Your task to perform on an android device: Show me recent news Image 0: 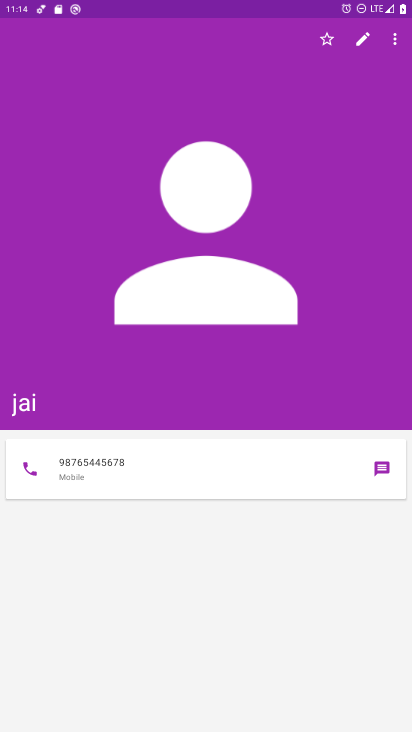
Step 0: drag from (227, 572) to (257, 271)
Your task to perform on an android device: Show me recent news Image 1: 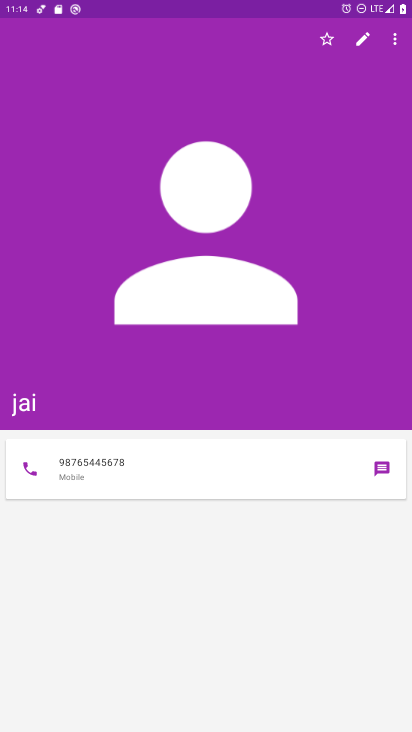
Step 1: press home button
Your task to perform on an android device: Show me recent news Image 2: 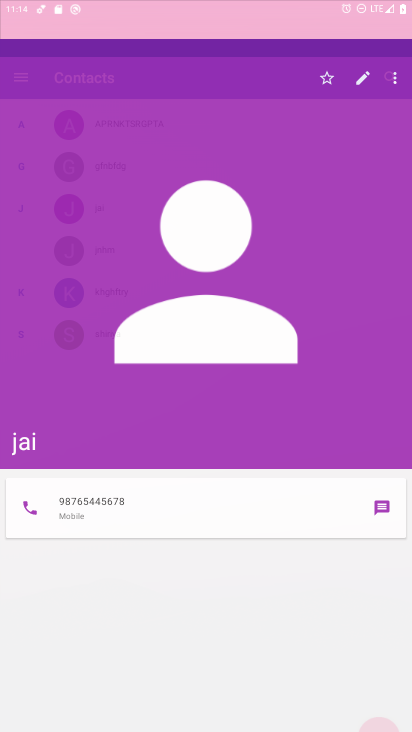
Step 2: drag from (255, 566) to (305, 51)
Your task to perform on an android device: Show me recent news Image 3: 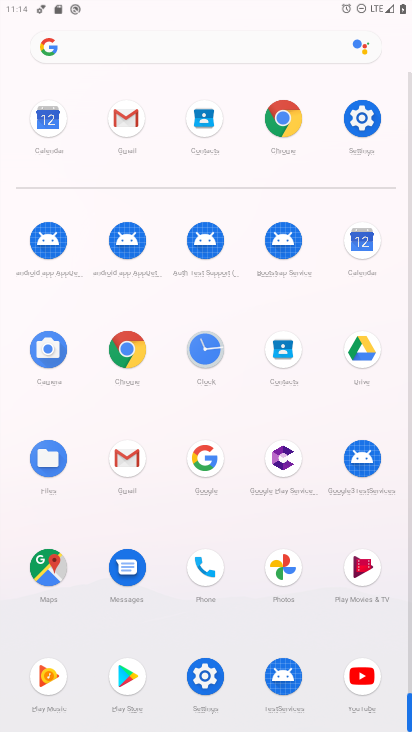
Step 3: click (131, 52)
Your task to perform on an android device: Show me recent news Image 4: 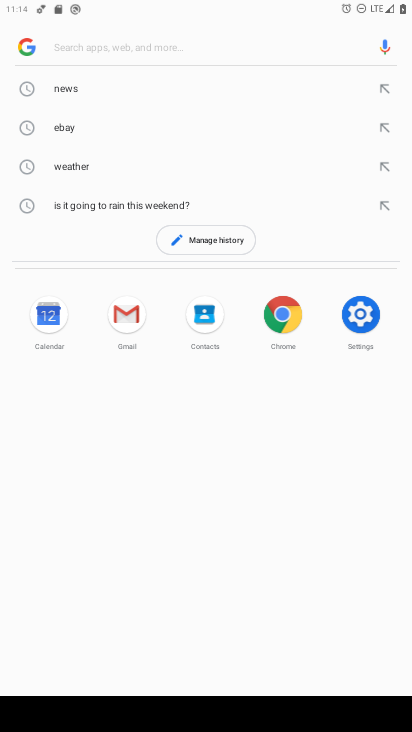
Step 4: type "recent news"
Your task to perform on an android device: Show me recent news Image 5: 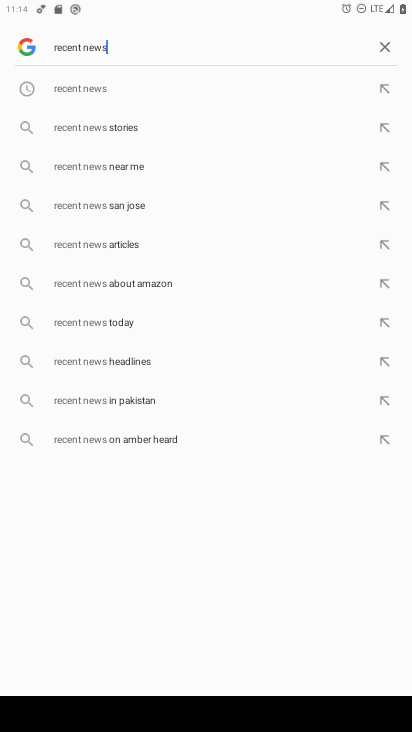
Step 5: click (124, 91)
Your task to perform on an android device: Show me recent news Image 6: 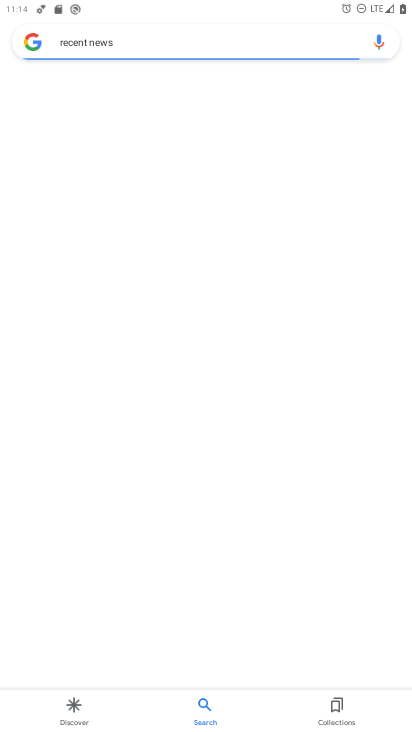
Step 6: task complete